Your task to perform on an android device: delete location history Image 0: 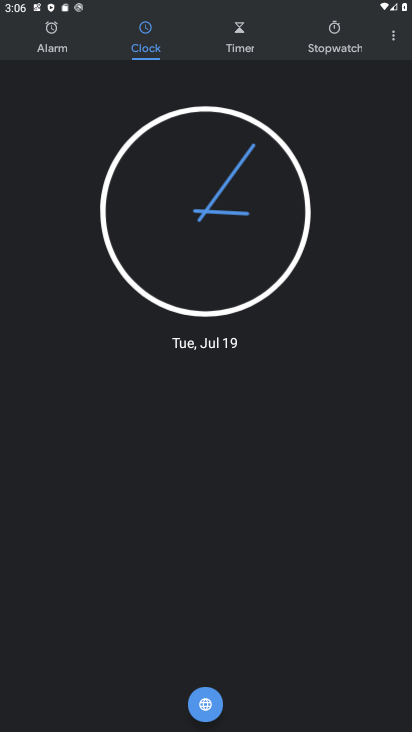
Step 0: press home button
Your task to perform on an android device: delete location history Image 1: 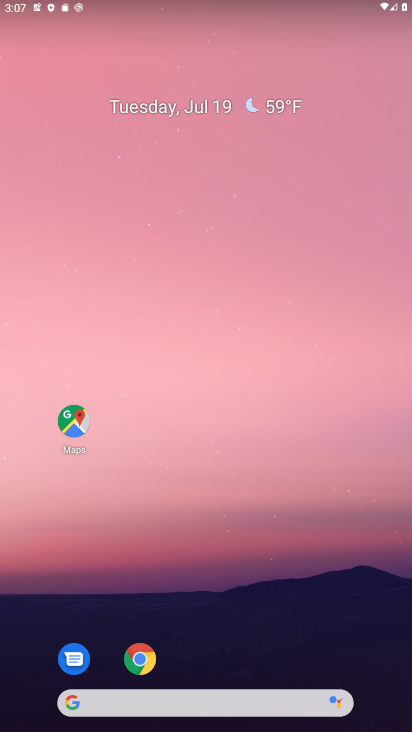
Step 1: drag from (204, 699) to (242, 80)
Your task to perform on an android device: delete location history Image 2: 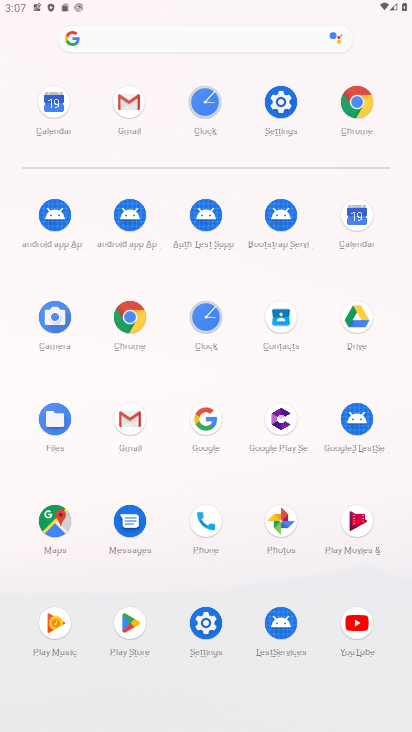
Step 2: click (53, 521)
Your task to perform on an android device: delete location history Image 3: 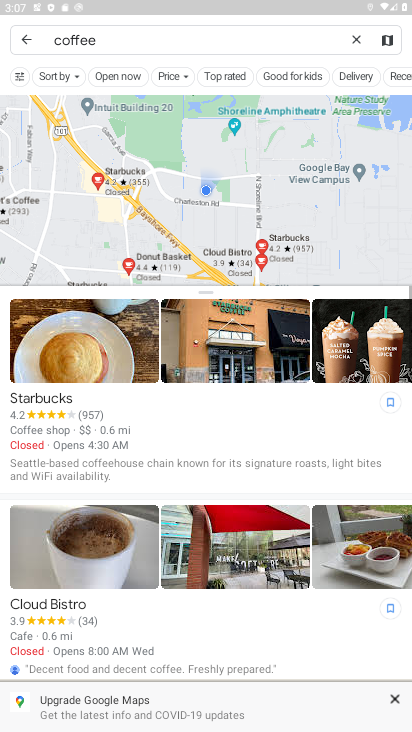
Step 3: press back button
Your task to perform on an android device: delete location history Image 4: 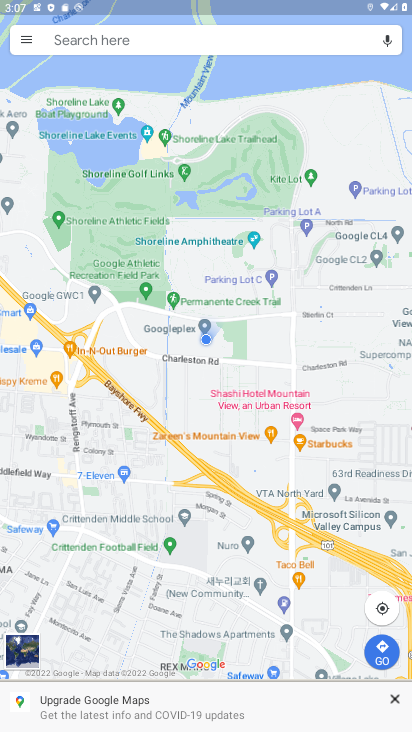
Step 4: click (26, 40)
Your task to perform on an android device: delete location history Image 5: 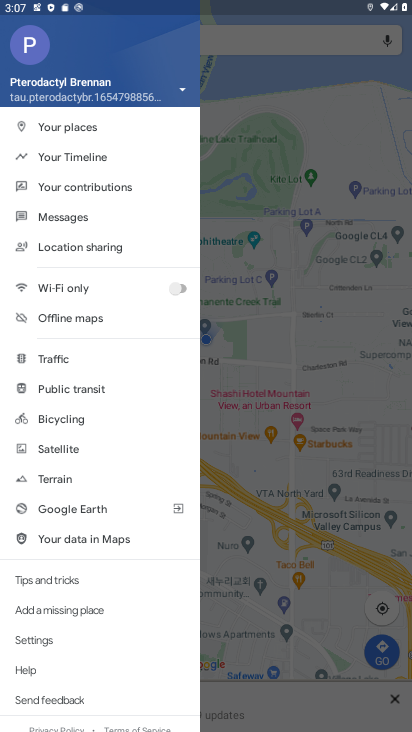
Step 5: click (39, 641)
Your task to perform on an android device: delete location history Image 6: 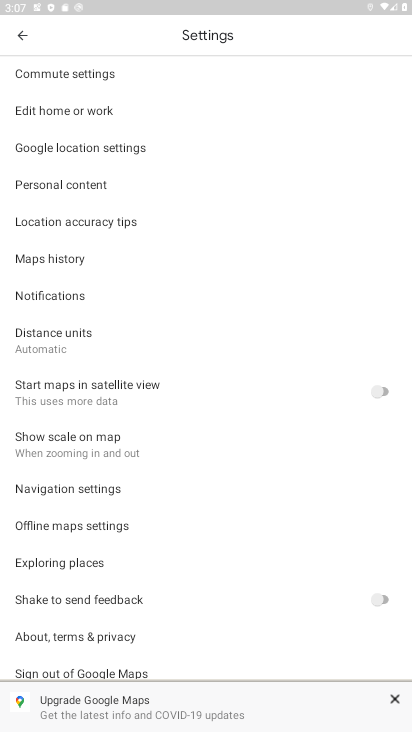
Step 6: click (78, 186)
Your task to perform on an android device: delete location history Image 7: 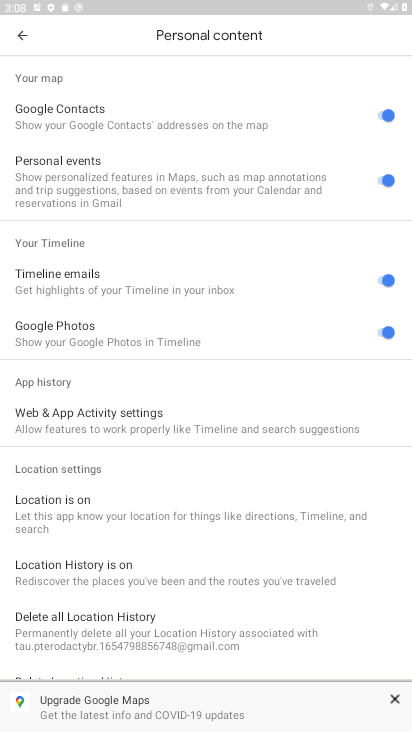
Step 7: click (101, 618)
Your task to perform on an android device: delete location history Image 8: 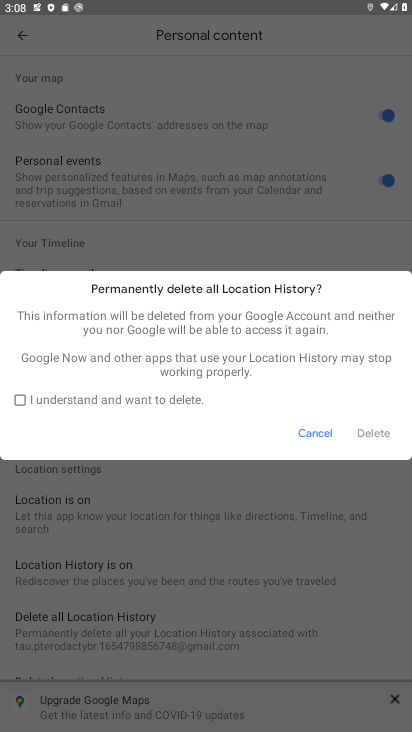
Step 8: click (19, 402)
Your task to perform on an android device: delete location history Image 9: 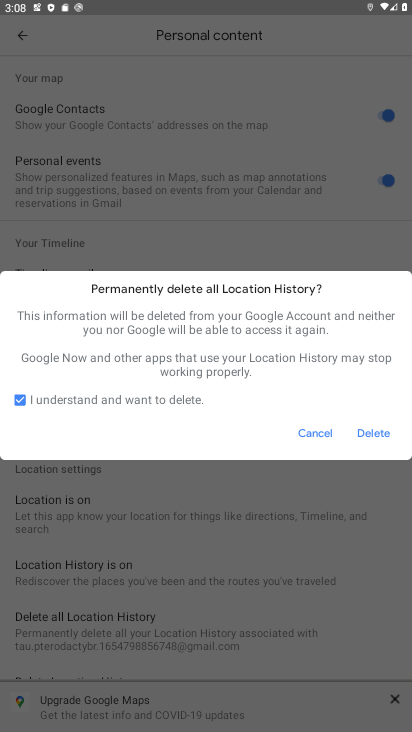
Step 9: click (379, 433)
Your task to perform on an android device: delete location history Image 10: 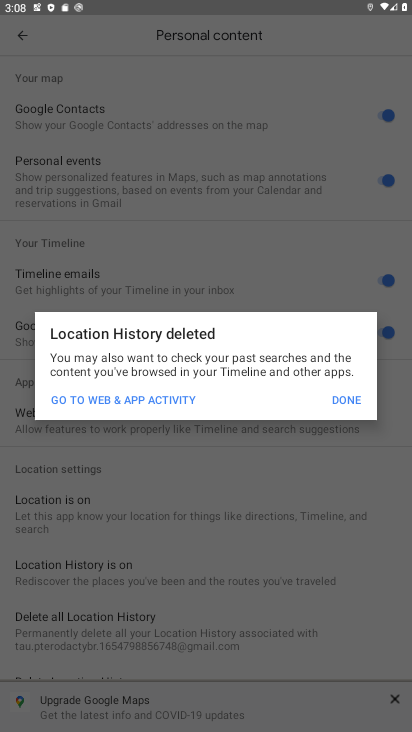
Step 10: click (343, 397)
Your task to perform on an android device: delete location history Image 11: 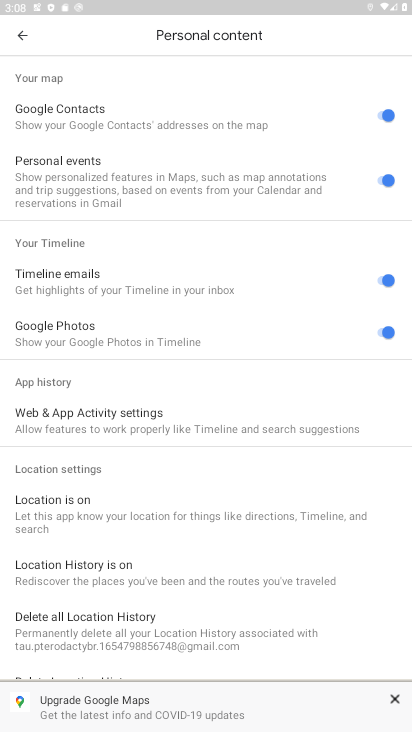
Step 11: task complete